Your task to perform on an android device: Open the web browser Image 0: 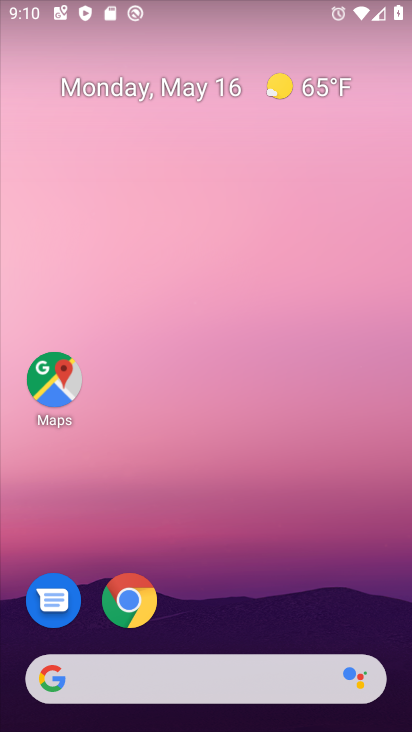
Step 0: drag from (226, 442) to (275, 155)
Your task to perform on an android device: Open the web browser Image 1: 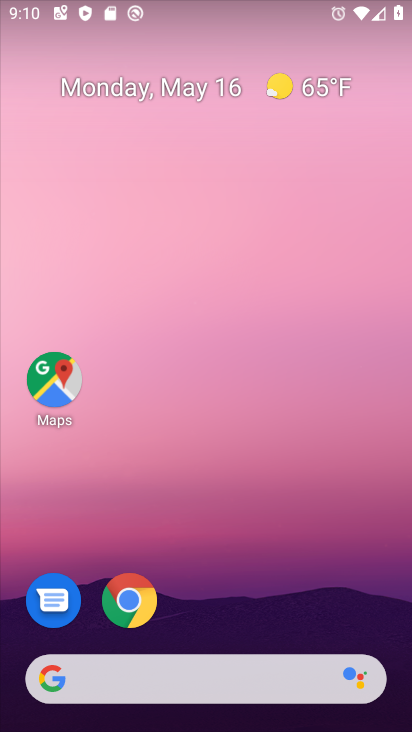
Step 1: drag from (196, 637) to (236, 76)
Your task to perform on an android device: Open the web browser Image 2: 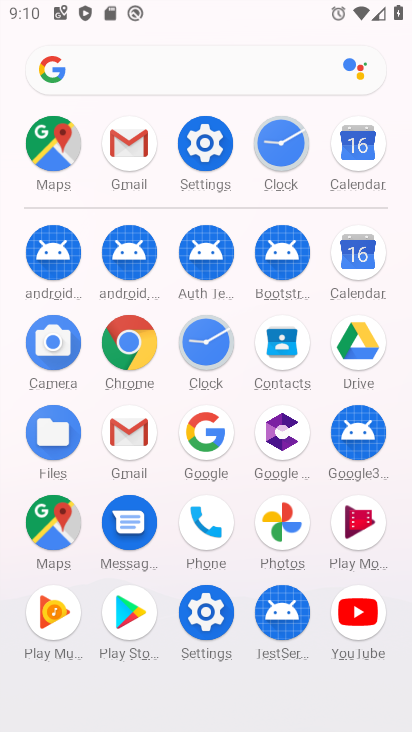
Step 2: click (114, 314)
Your task to perform on an android device: Open the web browser Image 3: 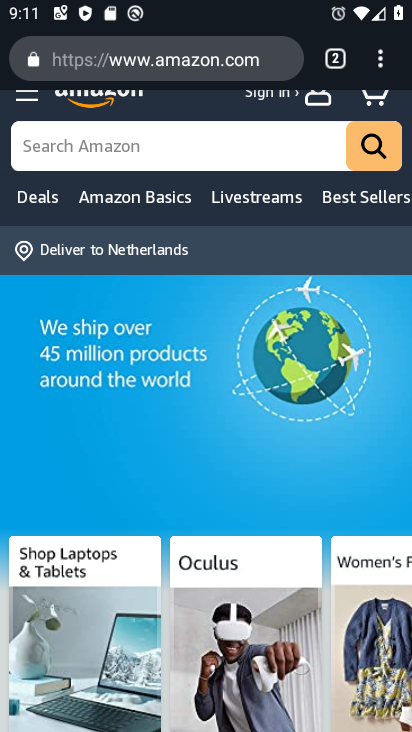
Step 3: click (391, 49)
Your task to perform on an android device: Open the web browser Image 4: 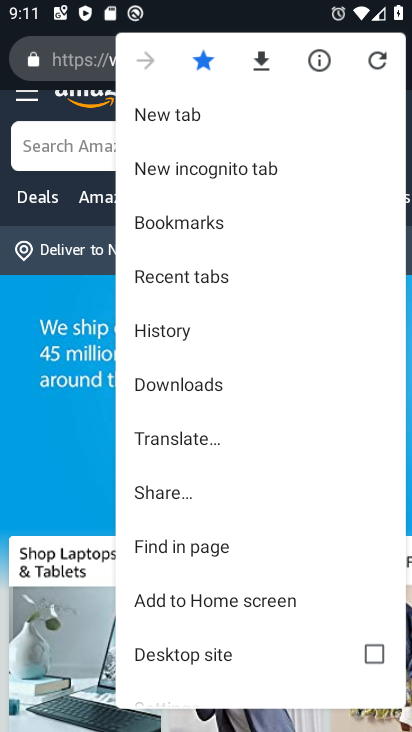
Step 4: drag from (263, 584) to (292, 185)
Your task to perform on an android device: Open the web browser Image 5: 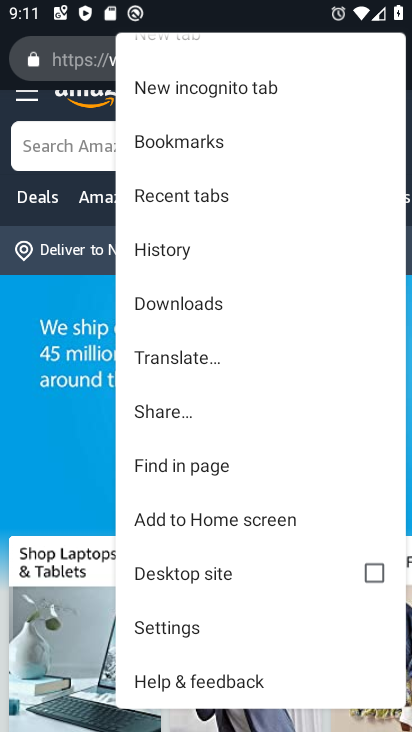
Step 5: click (159, 129)
Your task to perform on an android device: Open the web browser Image 6: 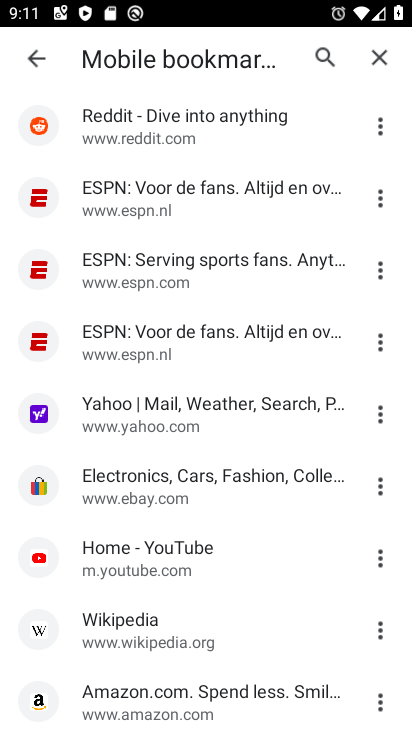
Step 6: task complete